Your task to perform on an android device: remove spam from my inbox in the gmail app Image 0: 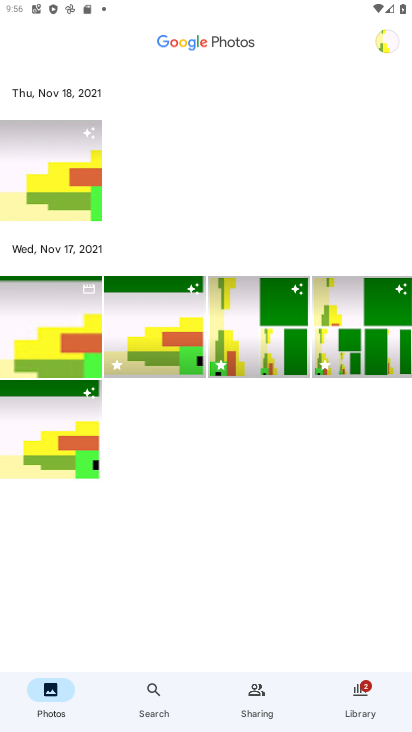
Step 0: press home button
Your task to perform on an android device: remove spam from my inbox in the gmail app Image 1: 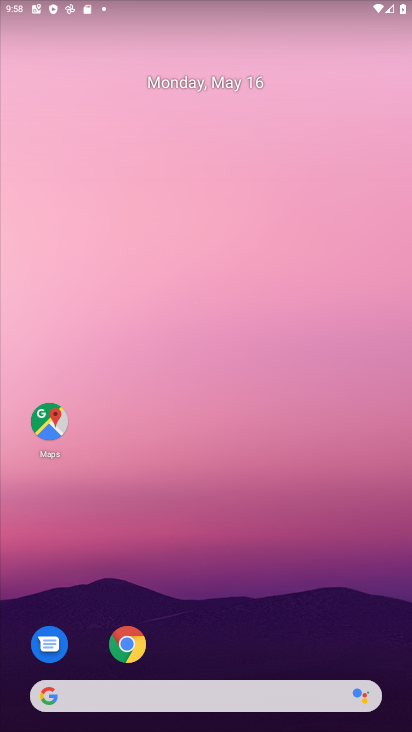
Step 1: drag from (183, 721) to (159, 226)
Your task to perform on an android device: remove spam from my inbox in the gmail app Image 2: 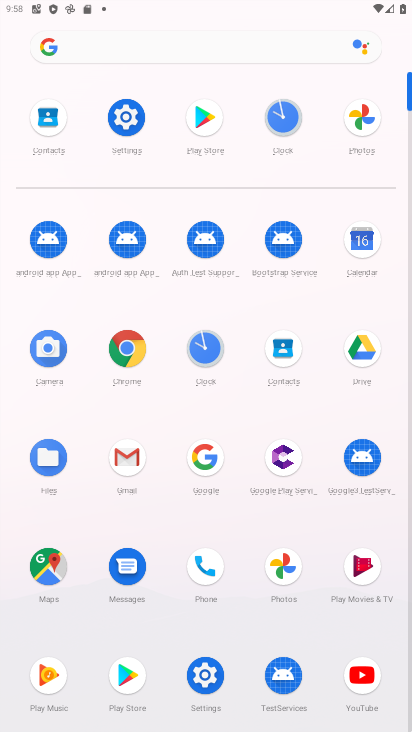
Step 2: click (141, 452)
Your task to perform on an android device: remove spam from my inbox in the gmail app Image 3: 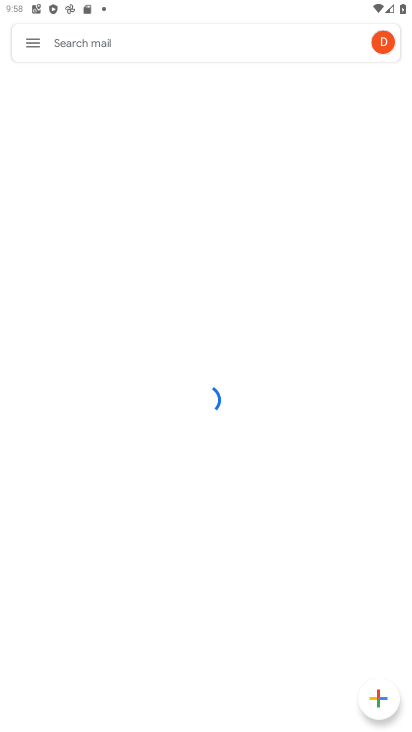
Step 3: click (37, 46)
Your task to perform on an android device: remove spam from my inbox in the gmail app Image 4: 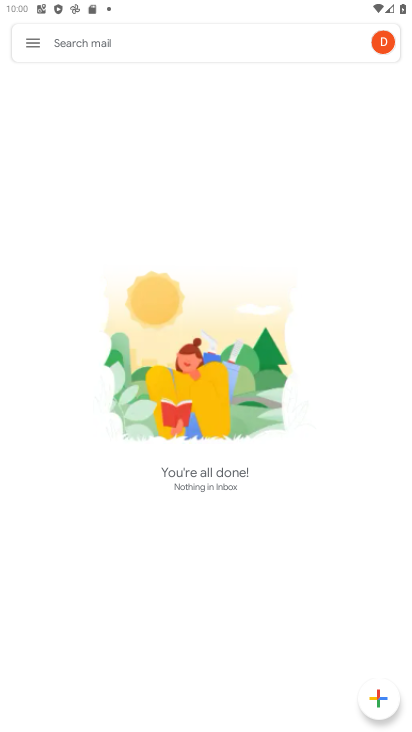
Step 4: click (30, 46)
Your task to perform on an android device: remove spam from my inbox in the gmail app Image 5: 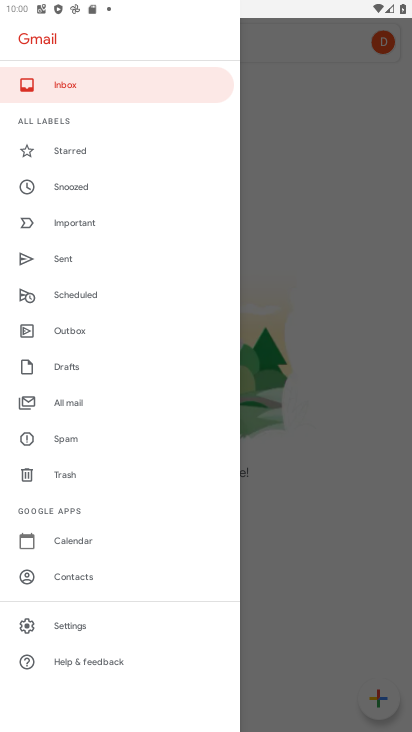
Step 5: click (85, 443)
Your task to perform on an android device: remove spam from my inbox in the gmail app Image 6: 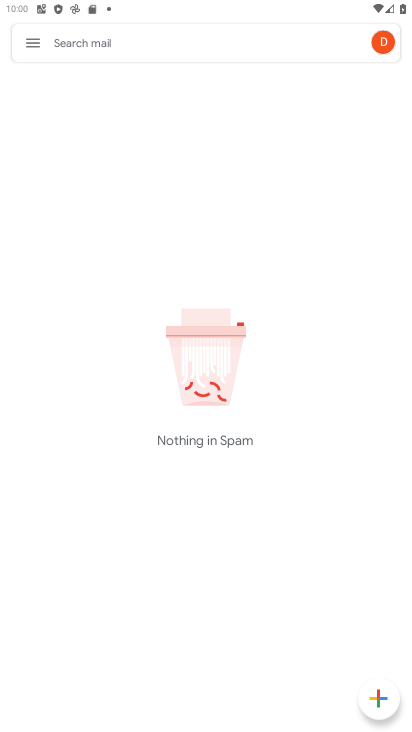
Step 6: task complete